Your task to perform on an android device: Go to Reddit.com Image 0: 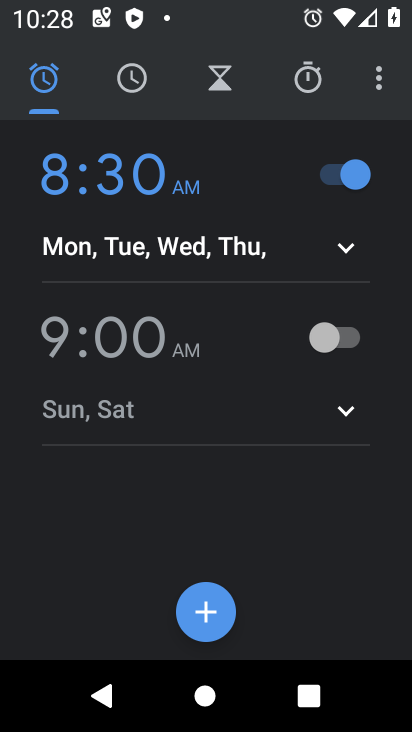
Step 0: press home button
Your task to perform on an android device: Go to Reddit.com Image 1: 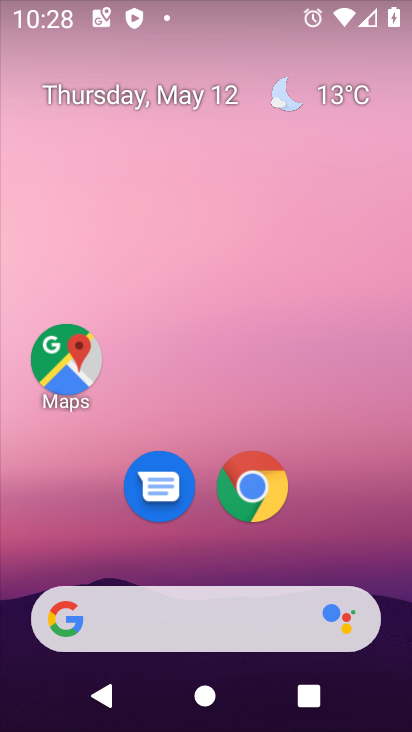
Step 1: click (277, 477)
Your task to perform on an android device: Go to Reddit.com Image 2: 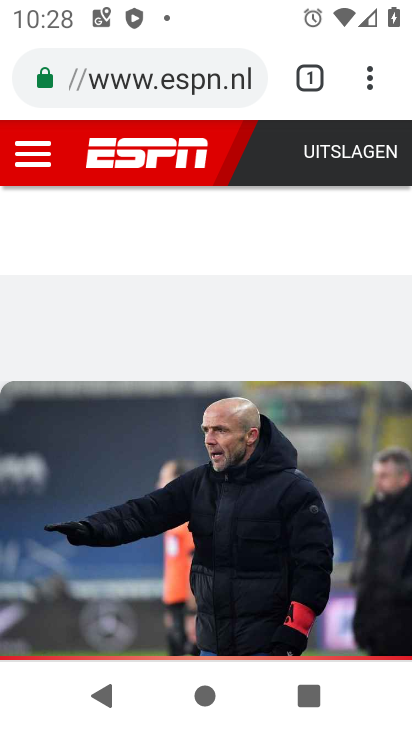
Step 2: click (228, 64)
Your task to perform on an android device: Go to Reddit.com Image 3: 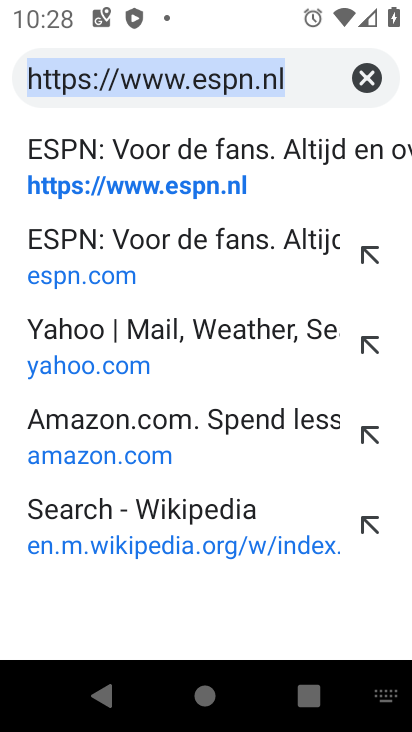
Step 3: type "reddit.com"
Your task to perform on an android device: Go to Reddit.com Image 4: 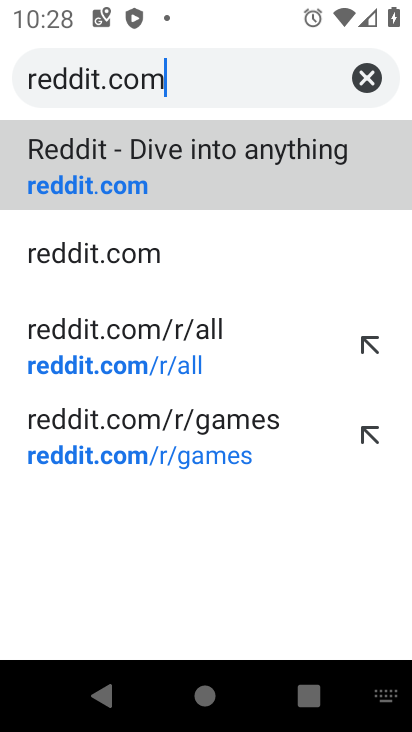
Step 4: click (280, 163)
Your task to perform on an android device: Go to Reddit.com Image 5: 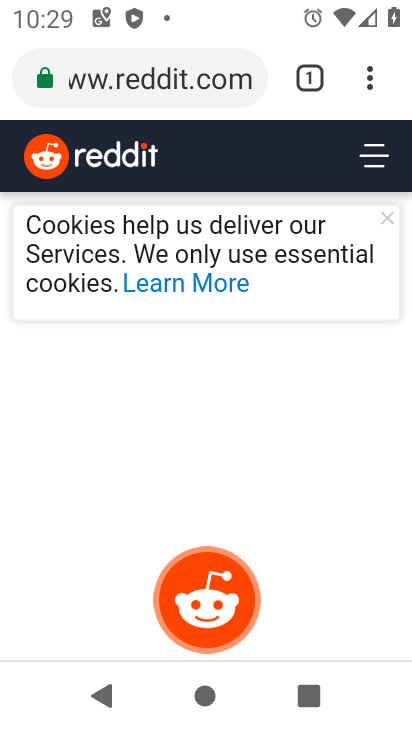
Step 5: task complete